Your task to perform on an android device: Open wifi settings Image 0: 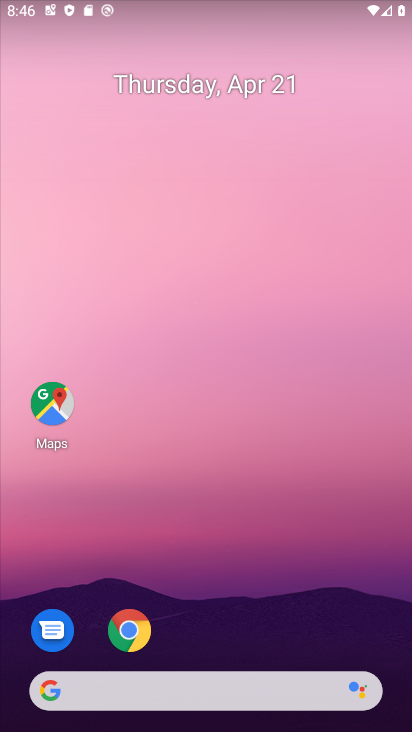
Step 0: drag from (206, 643) to (322, 76)
Your task to perform on an android device: Open wifi settings Image 1: 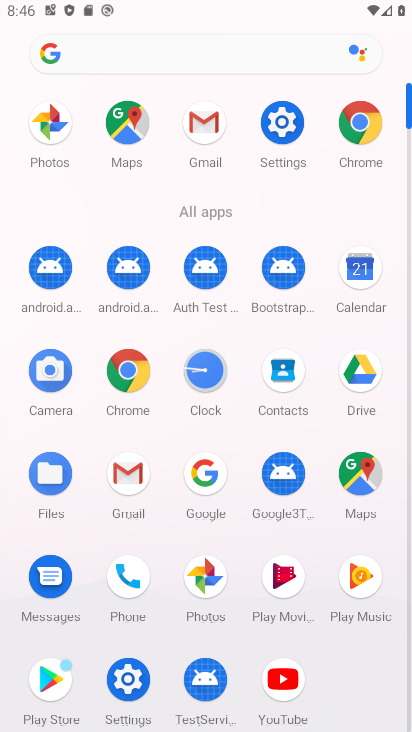
Step 1: click (127, 683)
Your task to perform on an android device: Open wifi settings Image 2: 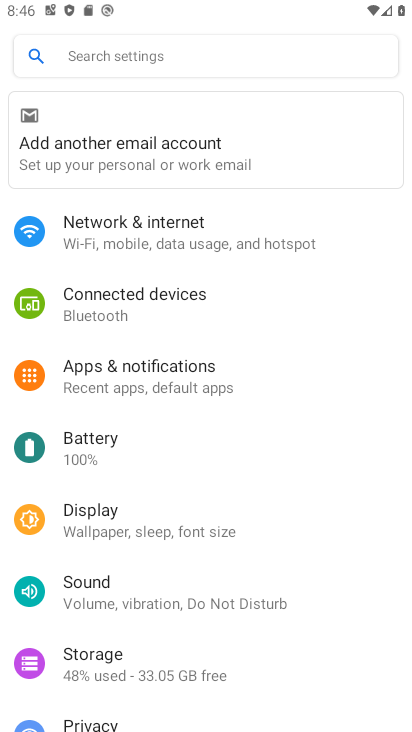
Step 2: click (179, 238)
Your task to perform on an android device: Open wifi settings Image 3: 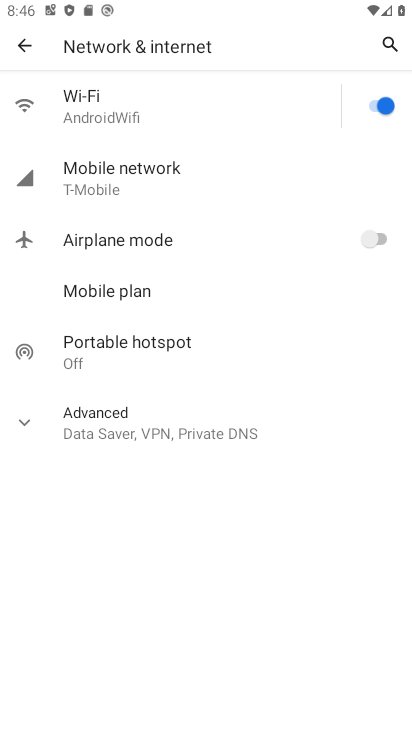
Step 3: task complete